Your task to perform on an android device: change the clock display to digital Image 0: 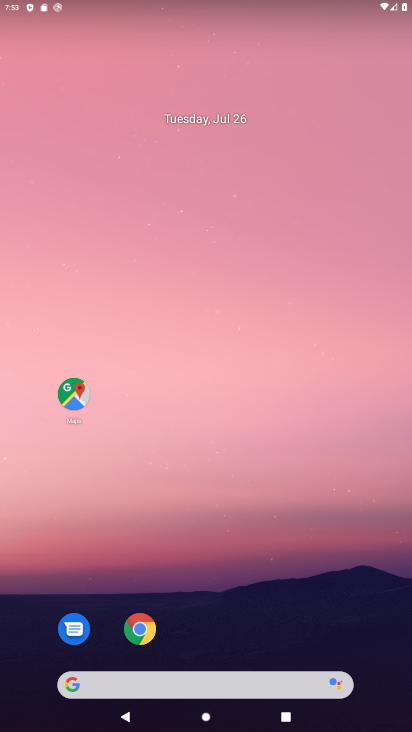
Step 0: press home button
Your task to perform on an android device: change the clock display to digital Image 1: 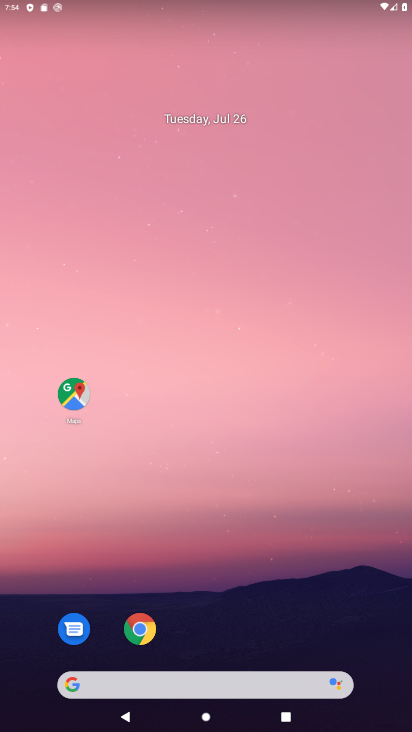
Step 1: drag from (212, 663) to (239, 58)
Your task to perform on an android device: change the clock display to digital Image 2: 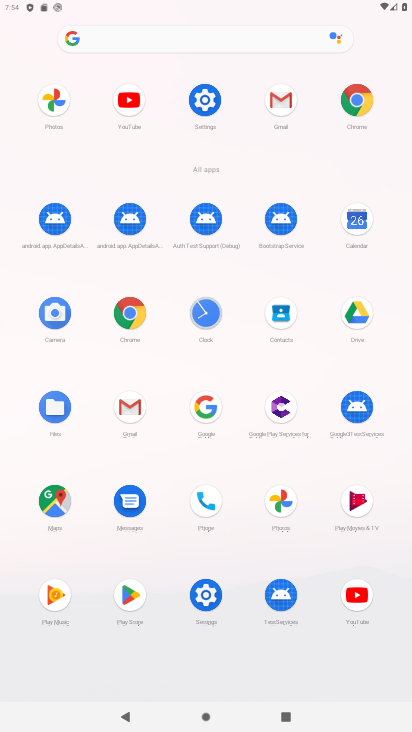
Step 2: click (204, 306)
Your task to perform on an android device: change the clock display to digital Image 3: 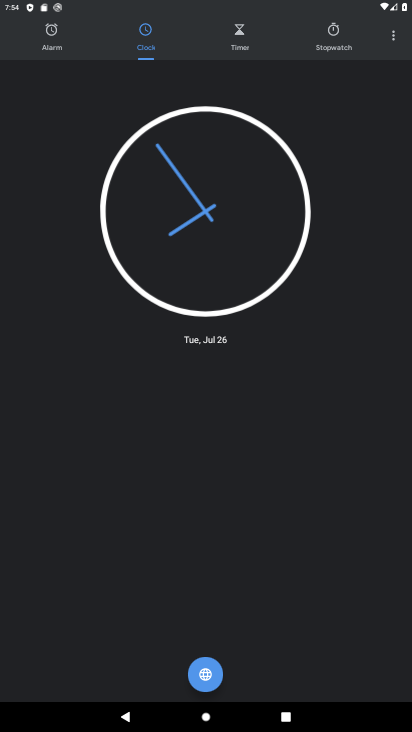
Step 3: click (392, 33)
Your task to perform on an android device: change the clock display to digital Image 4: 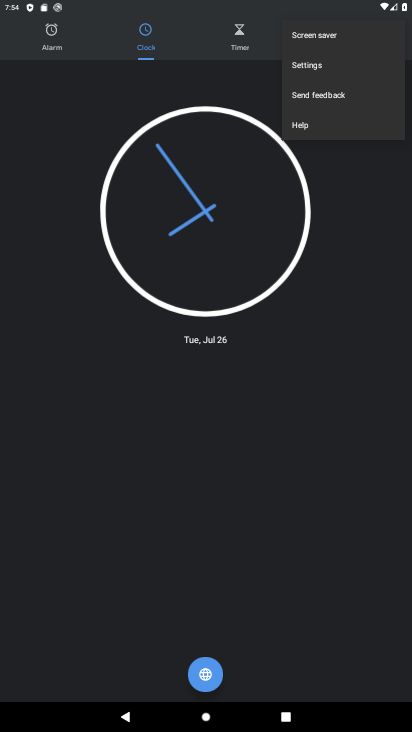
Step 4: click (328, 63)
Your task to perform on an android device: change the clock display to digital Image 5: 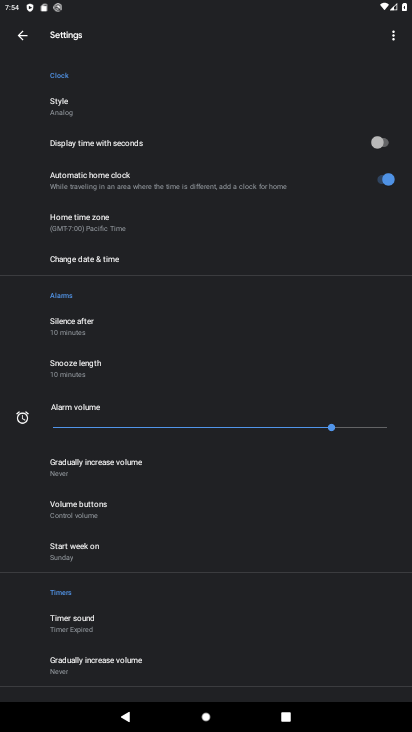
Step 5: click (97, 102)
Your task to perform on an android device: change the clock display to digital Image 6: 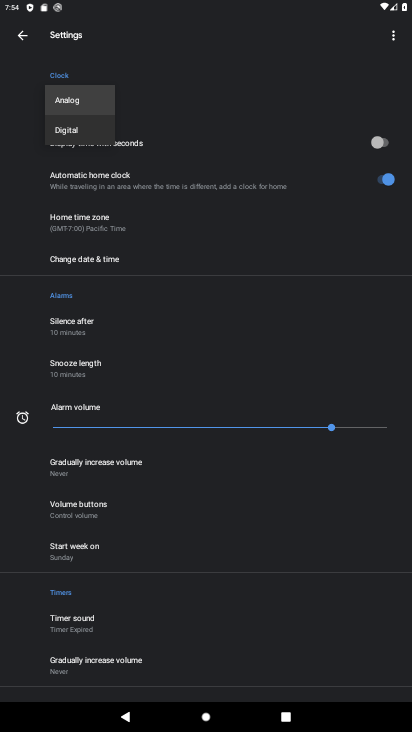
Step 6: click (86, 132)
Your task to perform on an android device: change the clock display to digital Image 7: 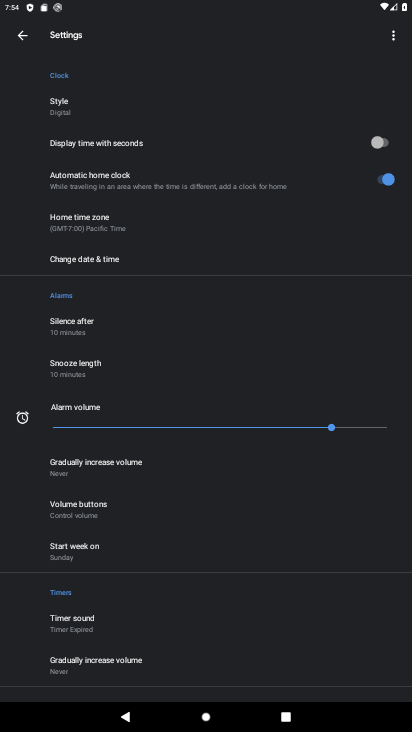
Step 7: task complete